Your task to perform on an android device: turn on bluetooth scan Image 0: 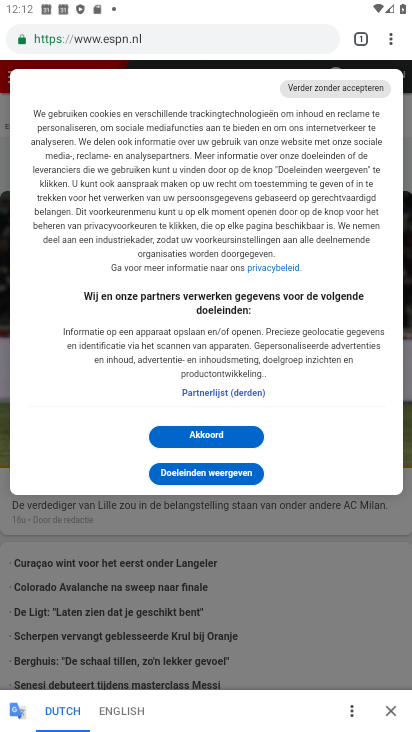
Step 0: press home button
Your task to perform on an android device: turn on bluetooth scan Image 1: 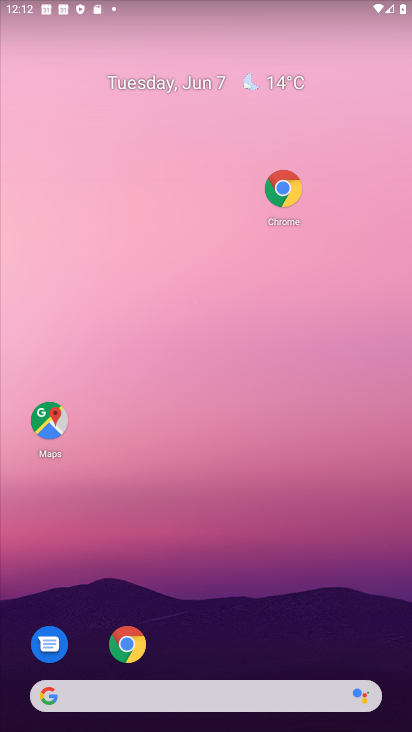
Step 1: drag from (305, 494) to (287, 133)
Your task to perform on an android device: turn on bluetooth scan Image 2: 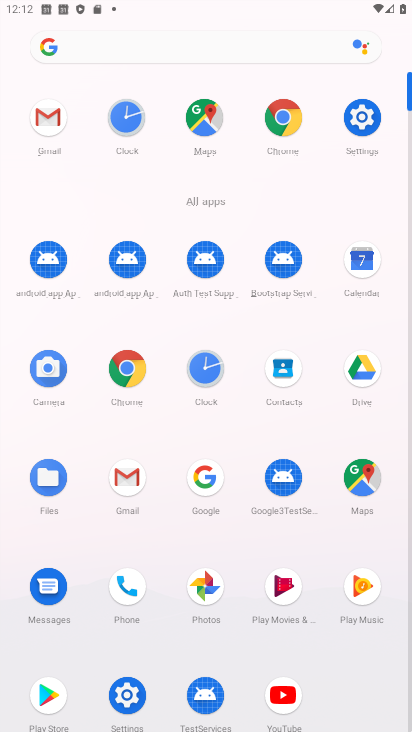
Step 2: click (370, 121)
Your task to perform on an android device: turn on bluetooth scan Image 3: 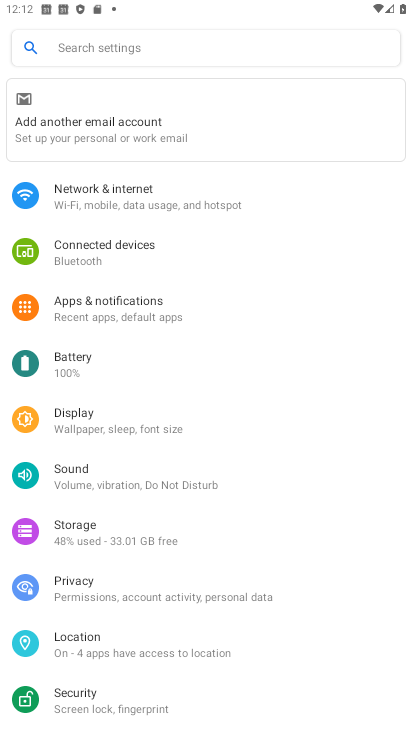
Step 3: click (109, 641)
Your task to perform on an android device: turn on bluetooth scan Image 4: 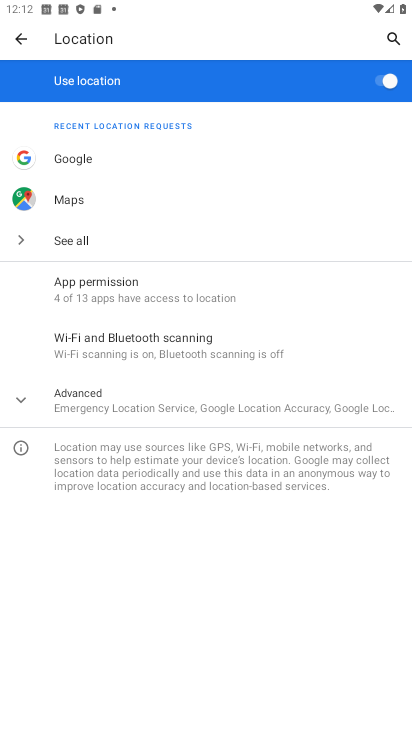
Step 4: click (173, 351)
Your task to perform on an android device: turn on bluetooth scan Image 5: 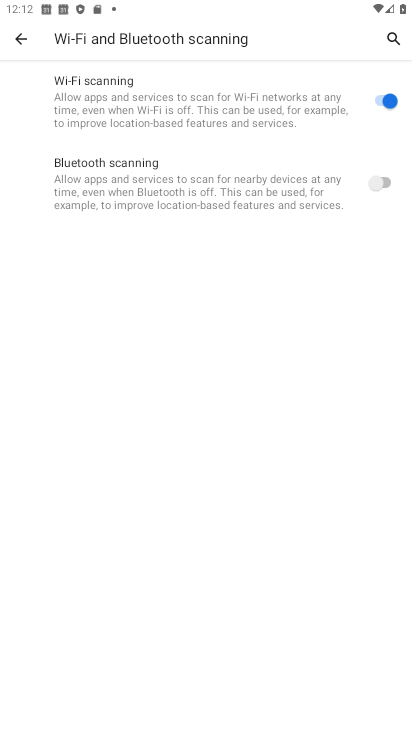
Step 5: click (373, 189)
Your task to perform on an android device: turn on bluetooth scan Image 6: 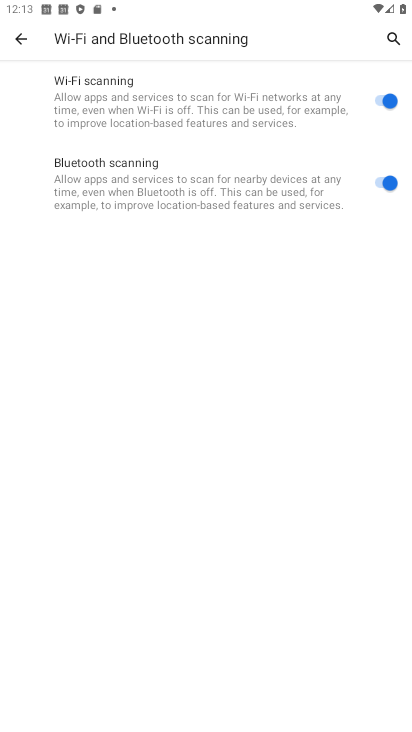
Step 6: task complete